Your task to perform on an android device: Do I have any events tomorrow? Image 0: 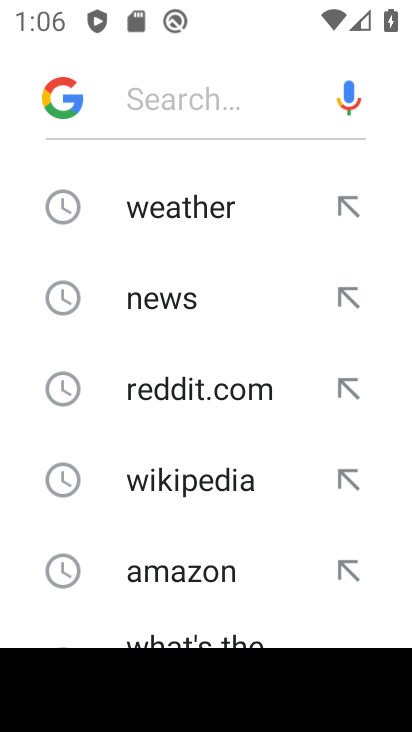
Step 0: press back button
Your task to perform on an android device: Do I have any events tomorrow? Image 1: 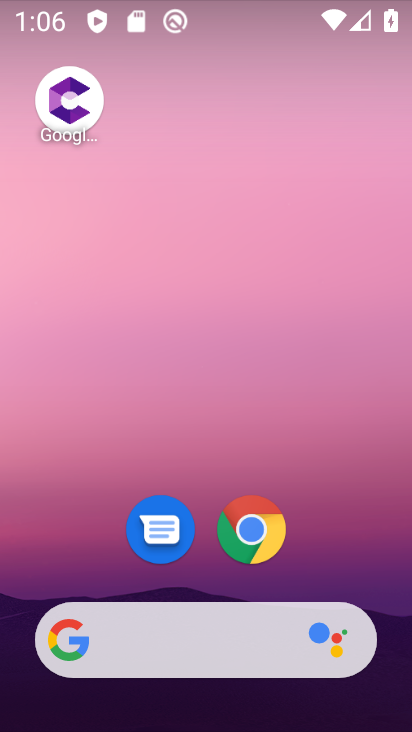
Step 1: drag from (347, 577) to (279, 120)
Your task to perform on an android device: Do I have any events tomorrow? Image 2: 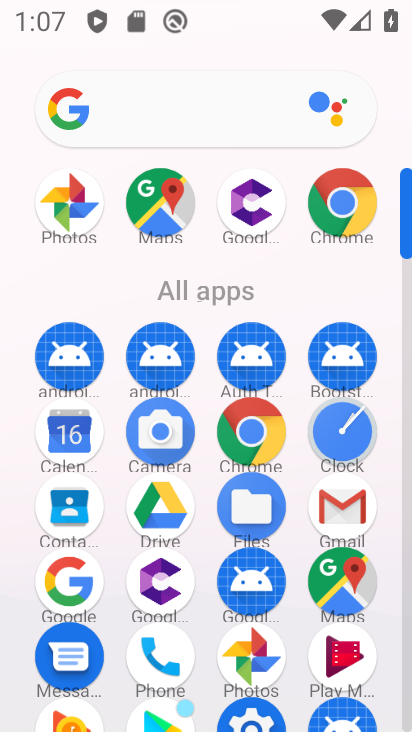
Step 2: click (75, 459)
Your task to perform on an android device: Do I have any events tomorrow? Image 3: 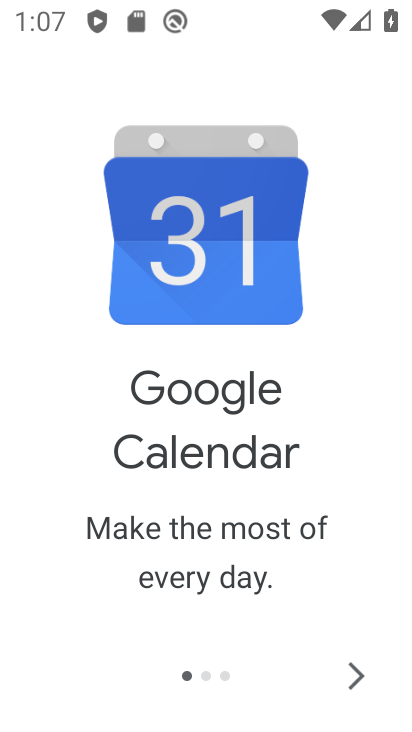
Step 3: click (354, 692)
Your task to perform on an android device: Do I have any events tomorrow? Image 4: 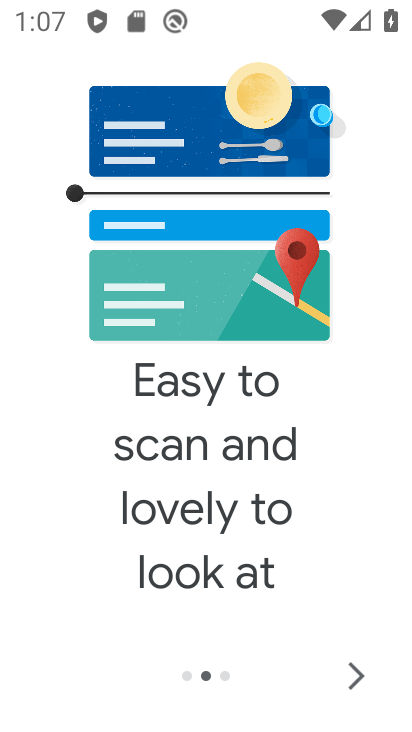
Step 4: click (354, 692)
Your task to perform on an android device: Do I have any events tomorrow? Image 5: 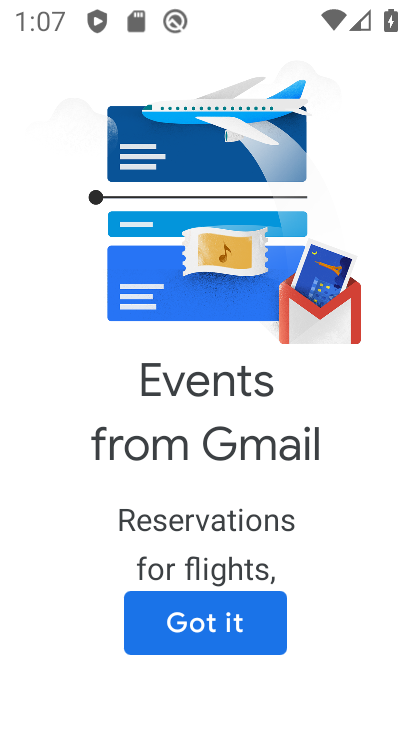
Step 5: click (354, 692)
Your task to perform on an android device: Do I have any events tomorrow? Image 6: 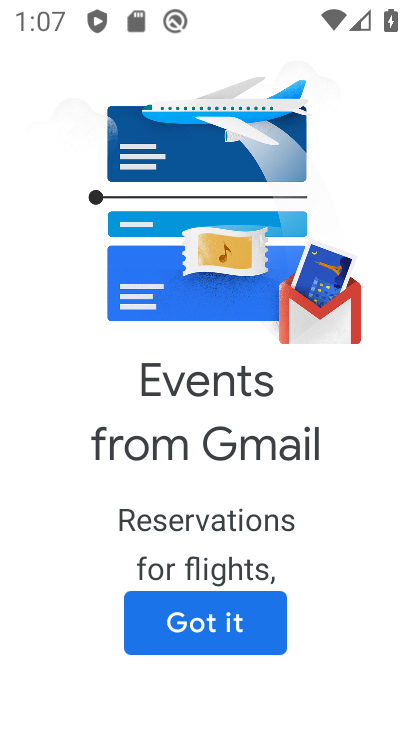
Step 6: click (218, 607)
Your task to perform on an android device: Do I have any events tomorrow? Image 7: 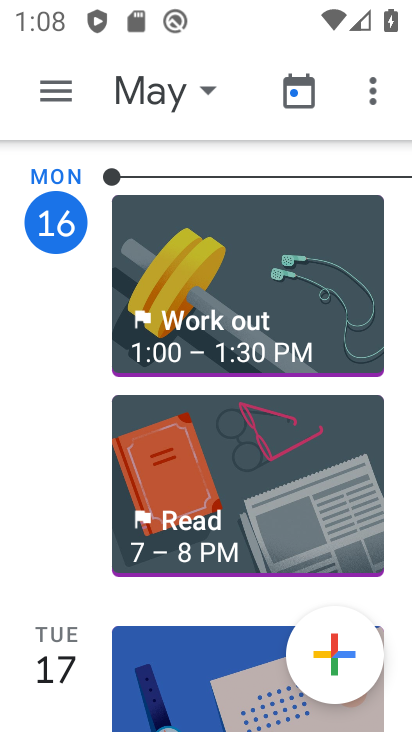
Step 7: click (60, 108)
Your task to perform on an android device: Do I have any events tomorrow? Image 8: 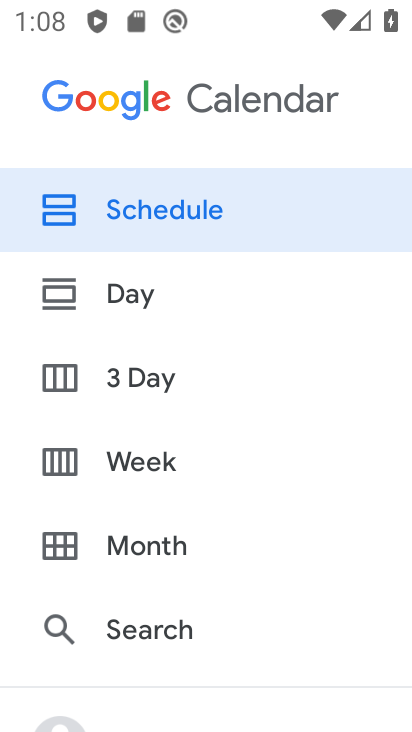
Step 8: click (143, 288)
Your task to perform on an android device: Do I have any events tomorrow? Image 9: 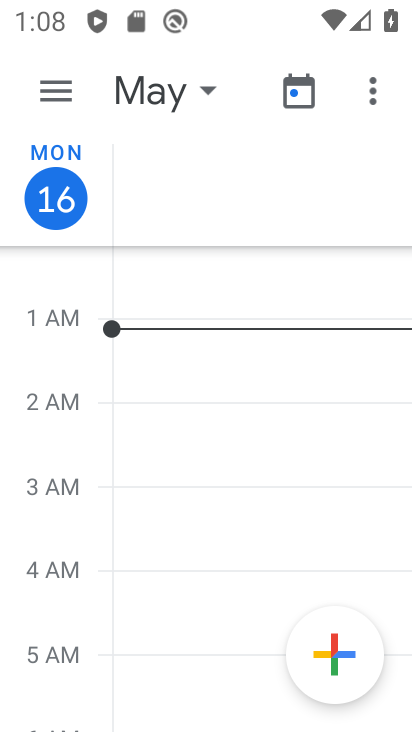
Step 9: click (47, 91)
Your task to perform on an android device: Do I have any events tomorrow? Image 10: 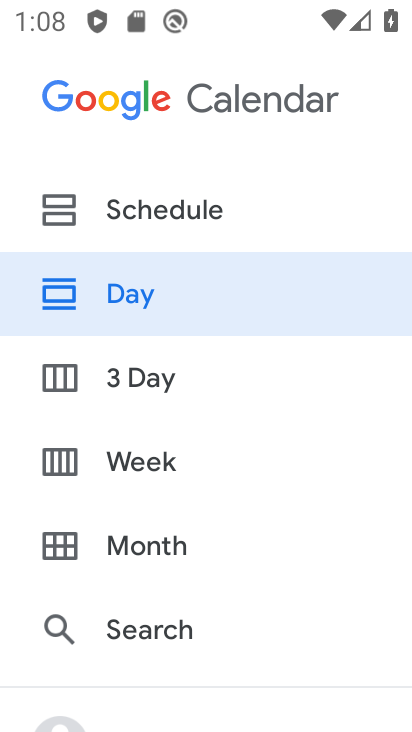
Step 10: drag from (225, 644) to (166, 144)
Your task to perform on an android device: Do I have any events tomorrow? Image 11: 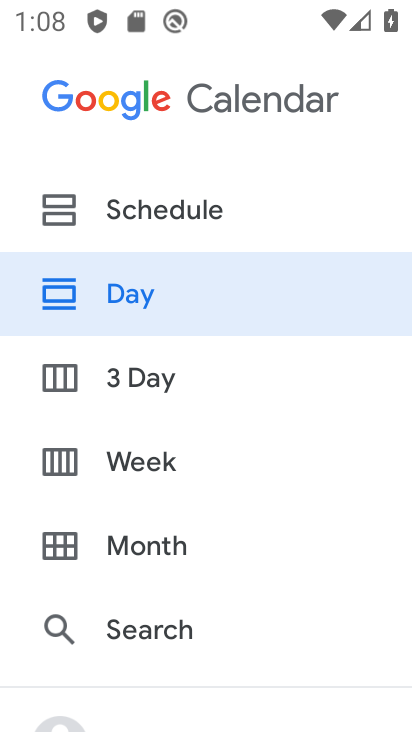
Step 11: drag from (288, 649) to (243, 19)
Your task to perform on an android device: Do I have any events tomorrow? Image 12: 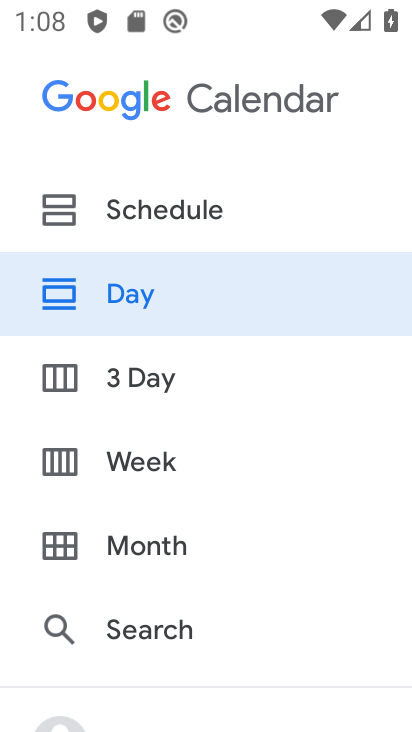
Step 12: drag from (179, 655) to (114, 97)
Your task to perform on an android device: Do I have any events tomorrow? Image 13: 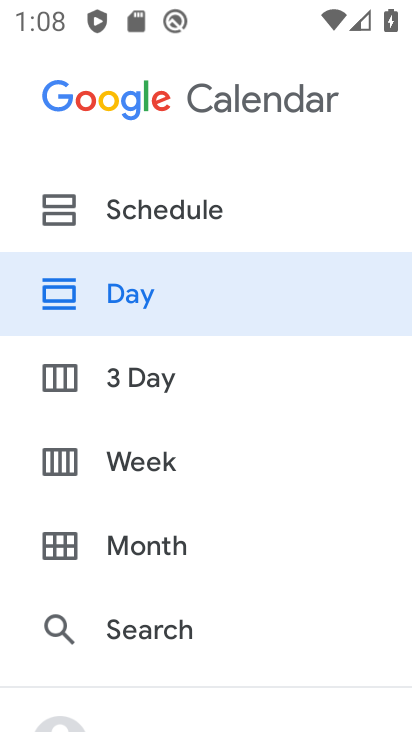
Step 13: drag from (202, 698) to (196, 98)
Your task to perform on an android device: Do I have any events tomorrow? Image 14: 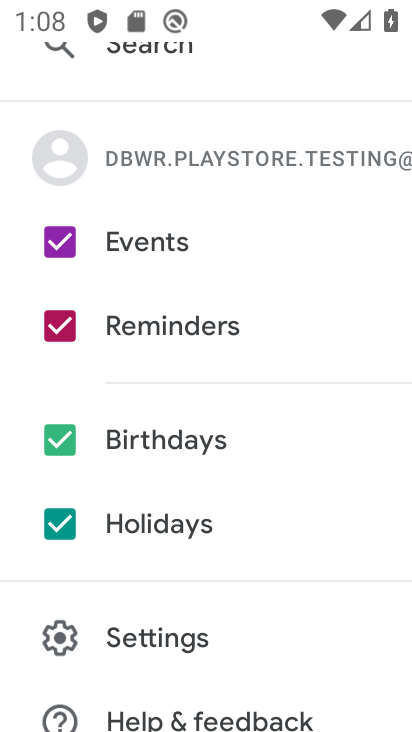
Step 14: click (64, 518)
Your task to perform on an android device: Do I have any events tomorrow? Image 15: 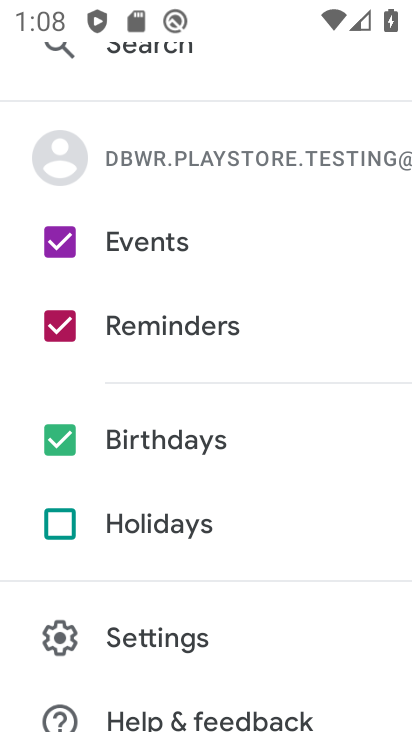
Step 15: click (63, 446)
Your task to perform on an android device: Do I have any events tomorrow? Image 16: 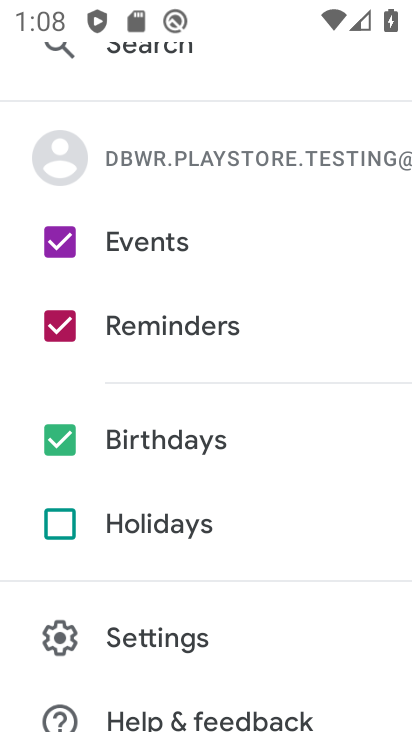
Step 16: click (60, 330)
Your task to perform on an android device: Do I have any events tomorrow? Image 17: 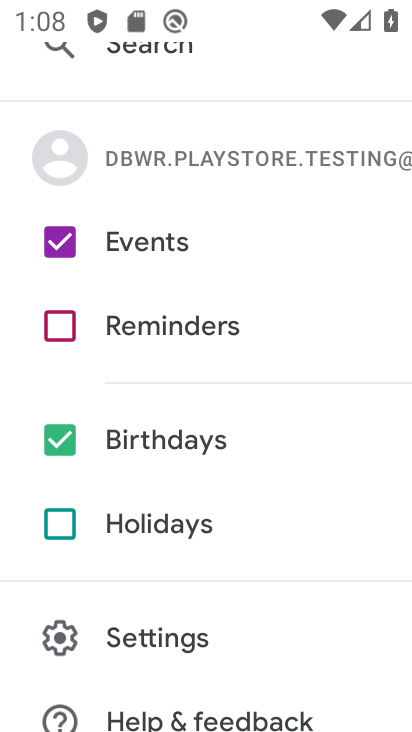
Step 17: drag from (217, 112) to (237, 684)
Your task to perform on an android device: Do I have any events tomorrow? Image 18: 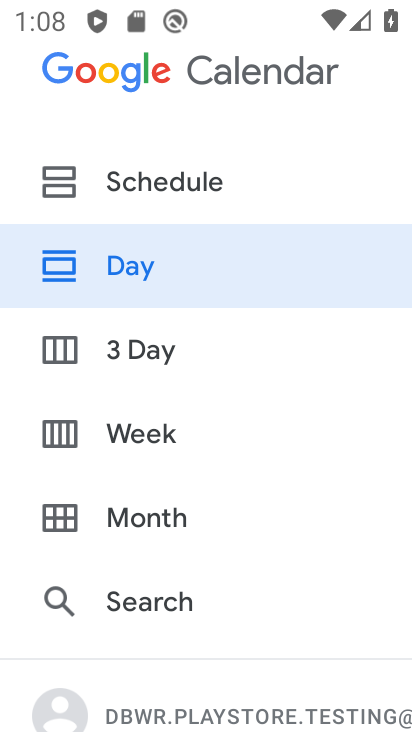
Step 18: click (157, 252)
Your task to perform on an android device: Do I have any events tomorrow? Image 19: 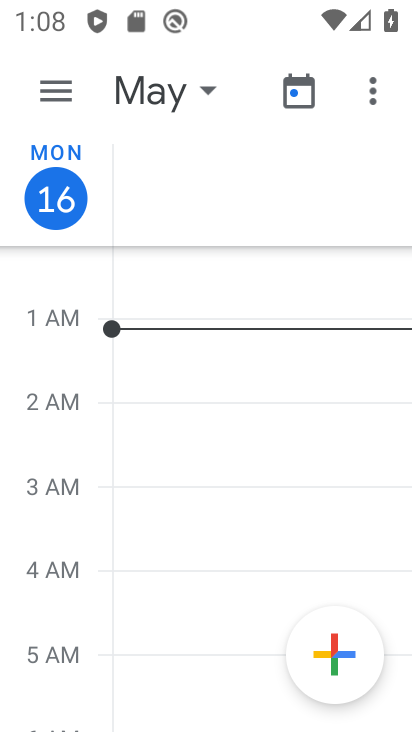
Step 19: click (186, 86)
Your task to perform on an android device: Do I have any events tomorrow? Image 20: 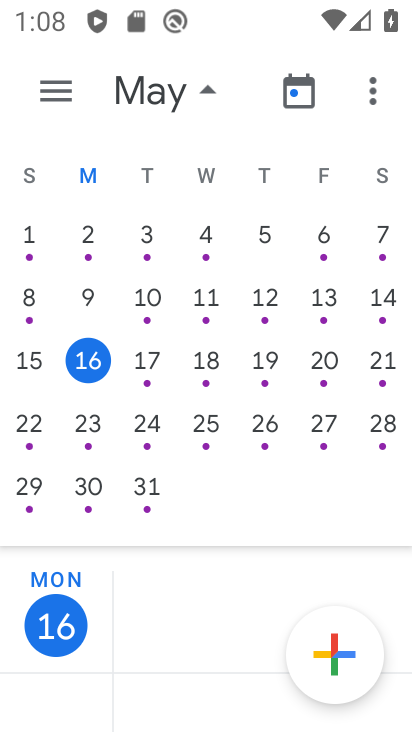
Step 20: click (146, 369)
Your task to perform on an android device: Do I have any events tomorrow? Image 21: 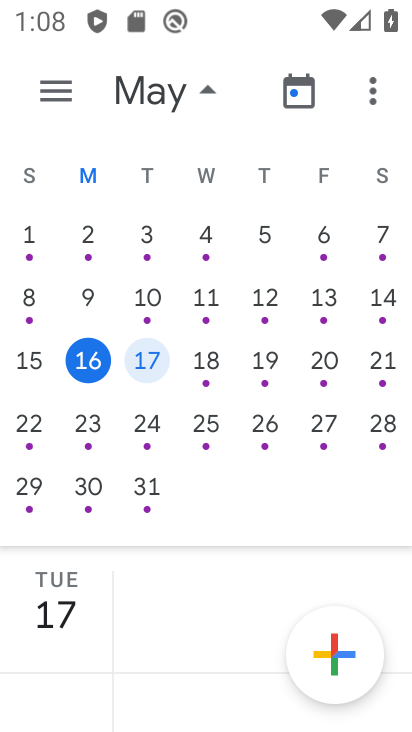
Step 21: click (173, 104)
Your task to perform on an android device: Do I have any events tomorrow? Image 22: 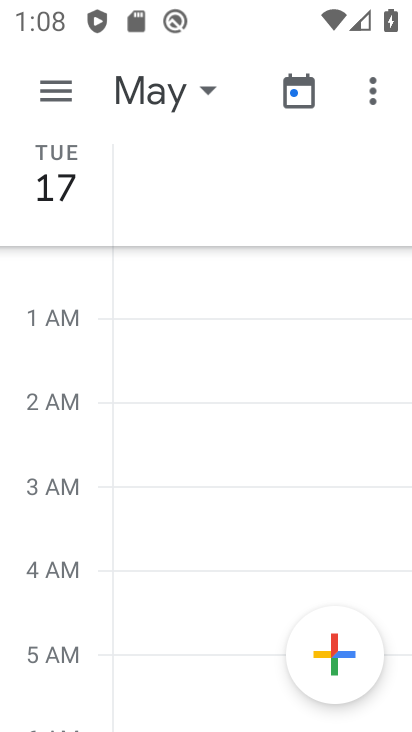
Step 22: task complete